Your task to perform on an android device: Open eBay Image 0: 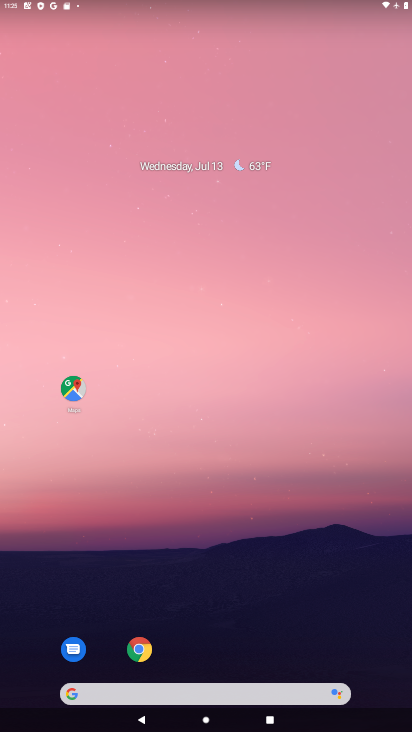
Step 0: drag from (279, 631) to (259, 312)
Your task to perform on an android device: Open eBay Image 1: 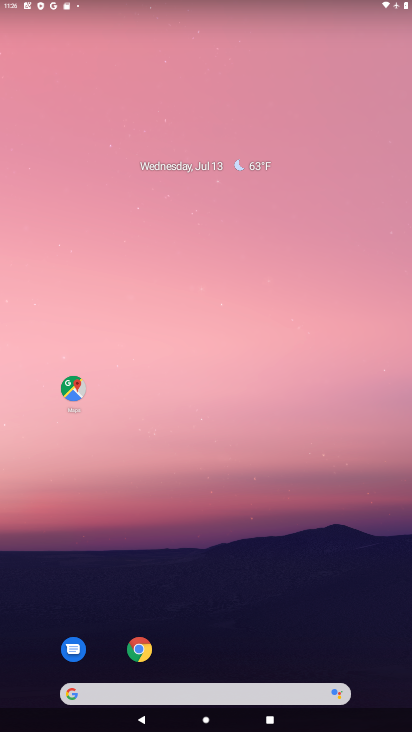
Step 1: drag from (229, 655) to (230, 201)
Your task to perform on an android device: Open eBay Image 2: 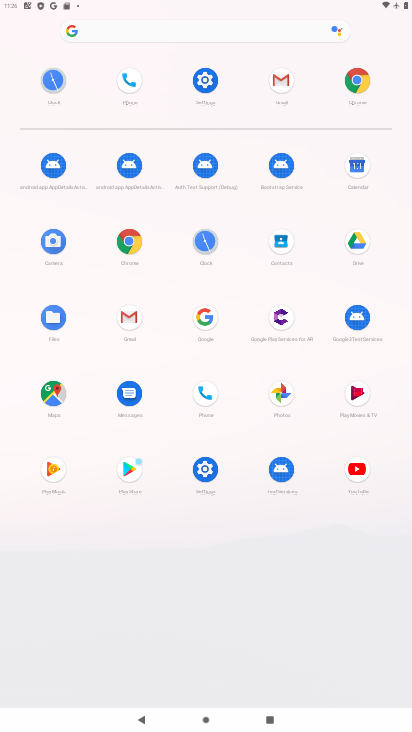
Step 2: click (130, 238)
Your task to perform on an android device: Open eBay Image 3: 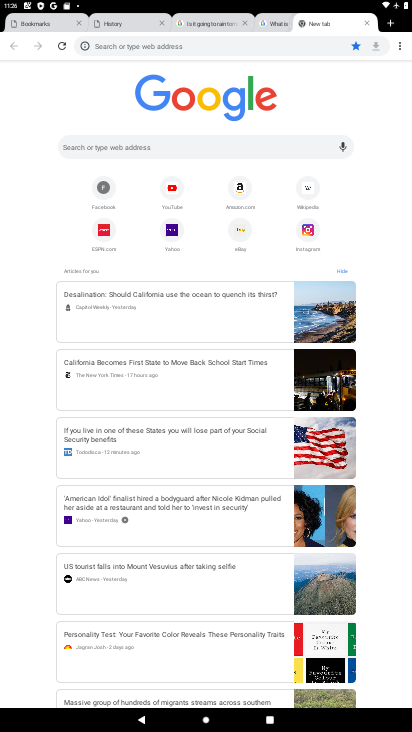
Step 3: click (236, 230)
Your task to perform on an android device: Open eBay Image 4: 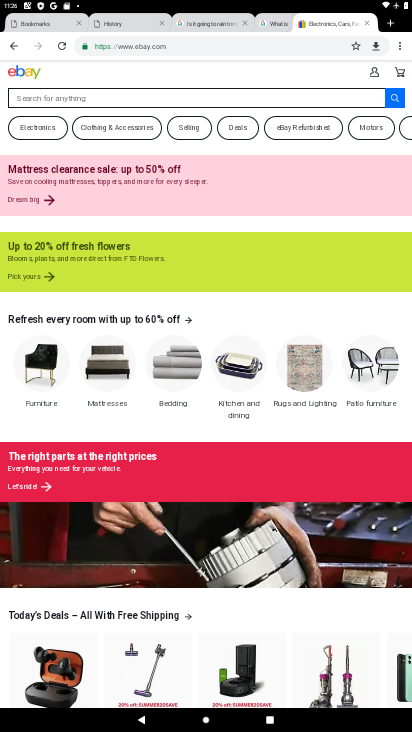
Step 4: task complete